Your task to perform on an android device: Open Wikipedia Image 0: 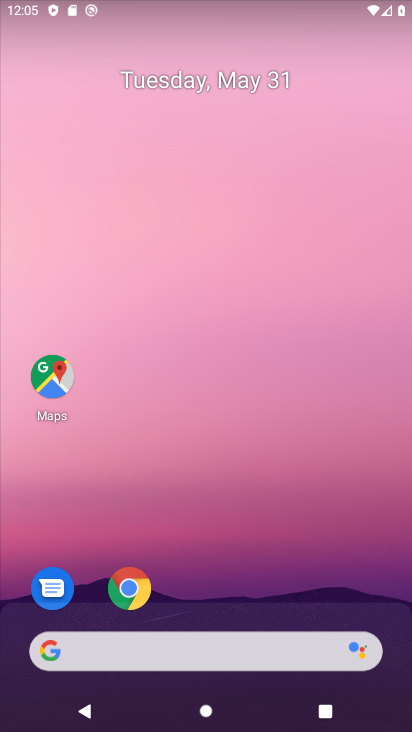
Step 0: click (122, 607)
Your task to perform on an android device: Open Wikipedia Image 1: 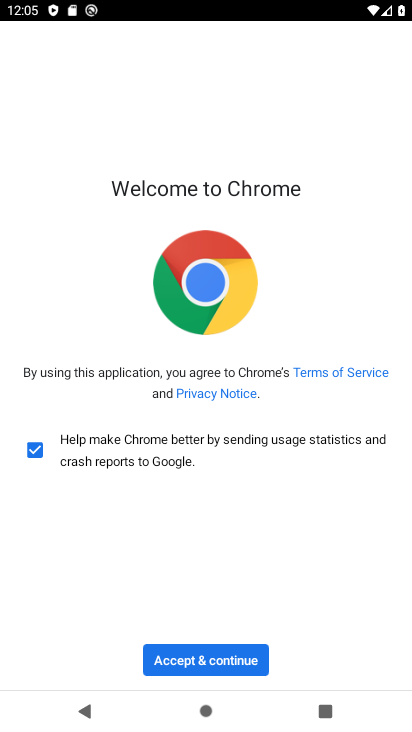
Step 1: click (221, 659)
Your task to perform on an android device: Open Wikipedia Image 2: 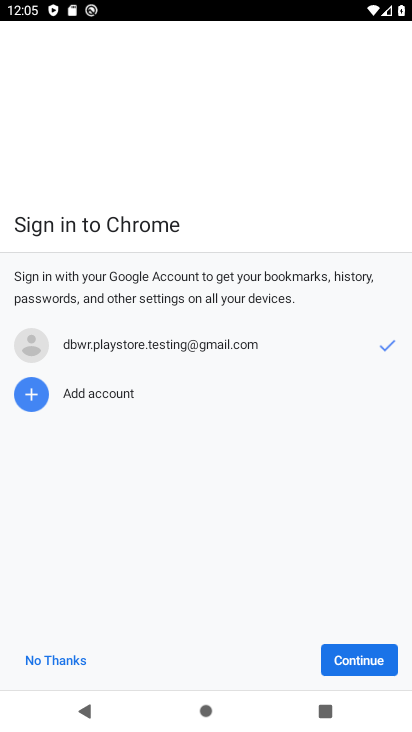
Step 2: click (342, 665)
Your task to perform on an android device: Open Wikipedia Image 3: 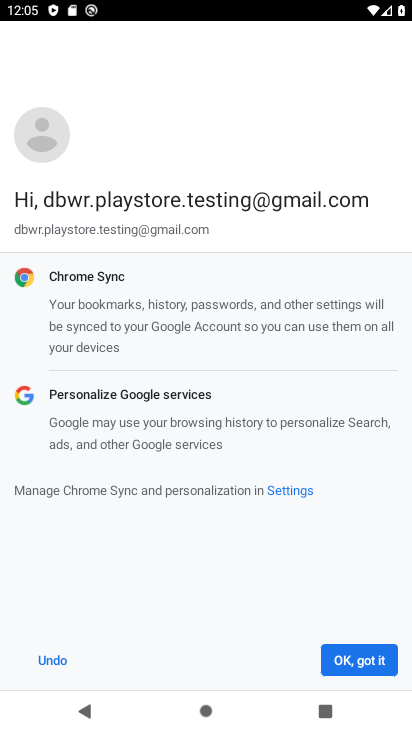
Step 3: click (342, 665)
Your task to perform on an android device: Open Wikipedia Image 4: 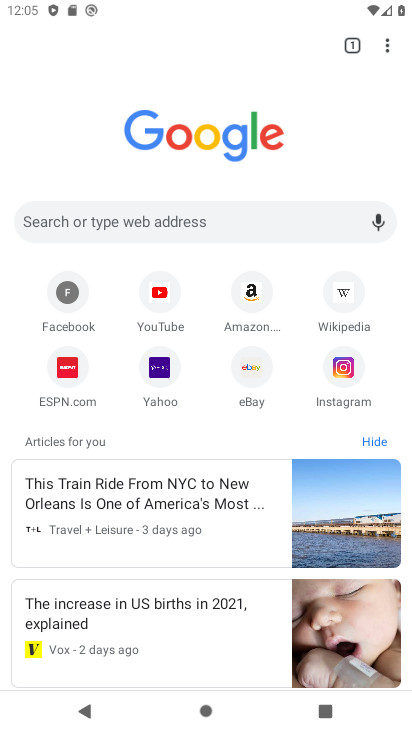
Step 4: click (345, 301)
Your task to perform on an android device: Open Wikipedia Image 5: 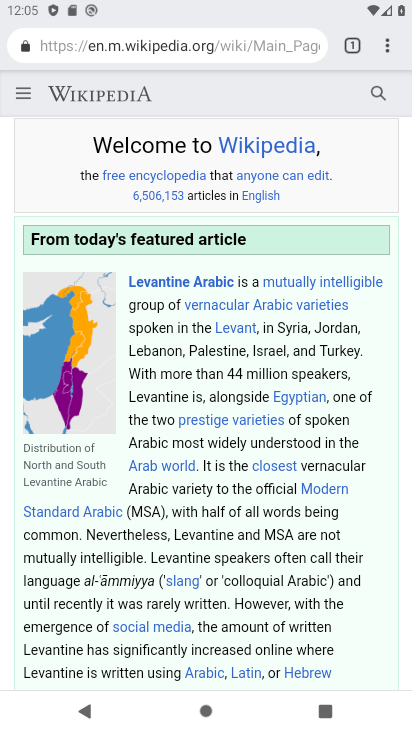
Step 5: task complete